Your task to perform on an android device: Go to CNN.com Image 0: 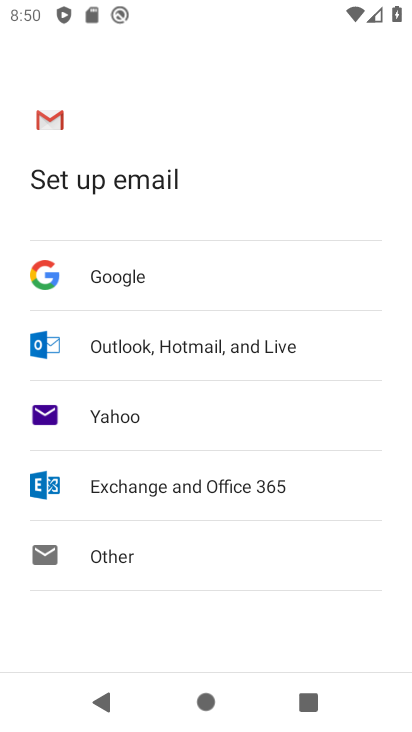
Step 0: press back button
Your task to perform on an android device: Go to CNN.com Image 1: 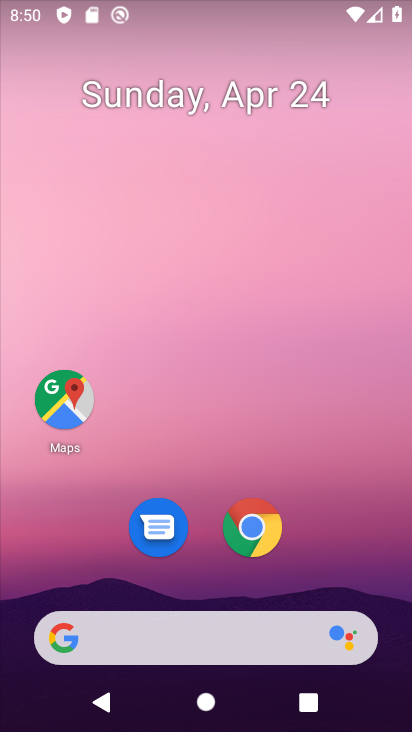
Step 1: drag from (390, 603) to (300, 167)
Your task to perform on an android device: Go to CNN.com Image 2: 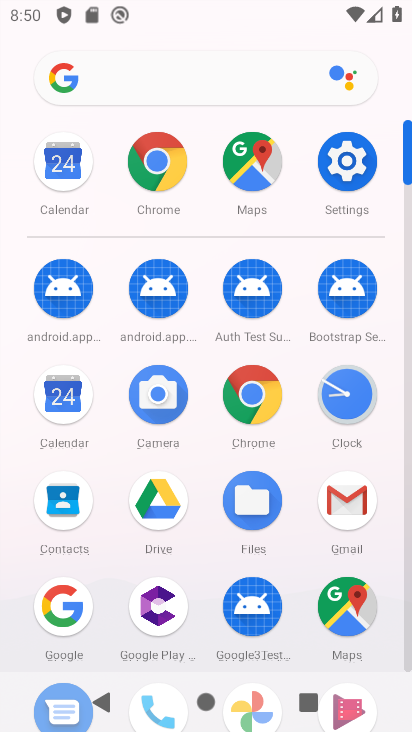
Step 2: click (235, 396)
Your task to perform on an android device: Go to CNN.com Image 3: 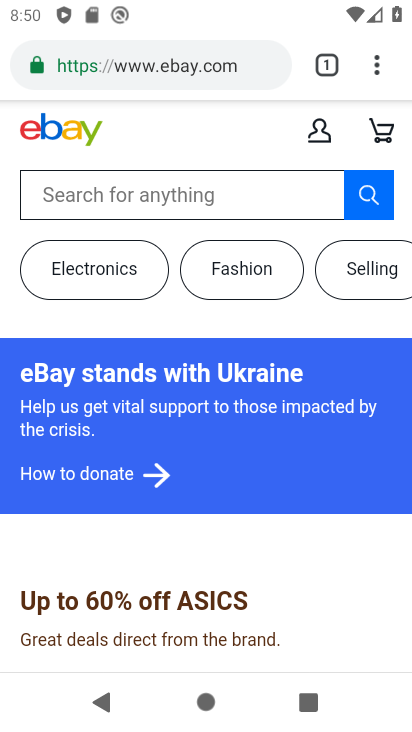
Step 3: press back button
Your task to perform on an android device: Go to CNN.com Image 4: 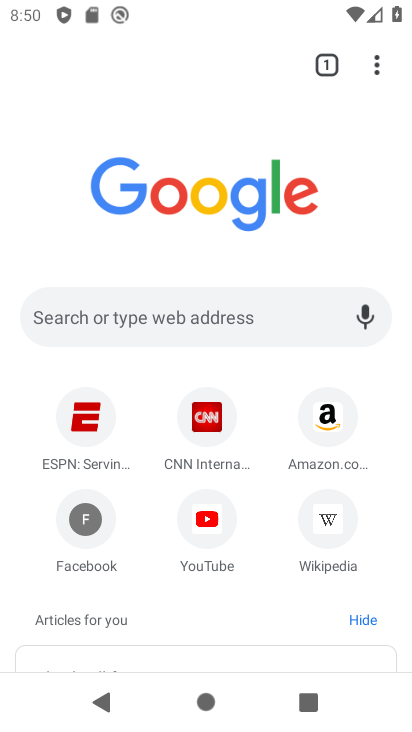
Step 4: click (214, 423)
Your task to perform on an android device: Go to CNN.com Image 5: 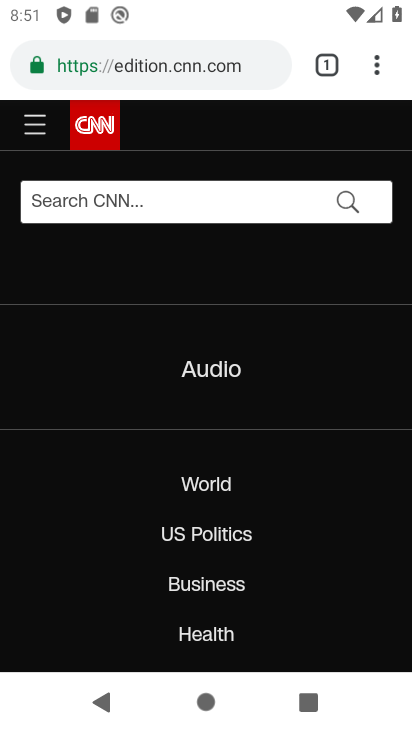
Step 5: task complete